Your task to perform on an android device: Check the weather Image 0: 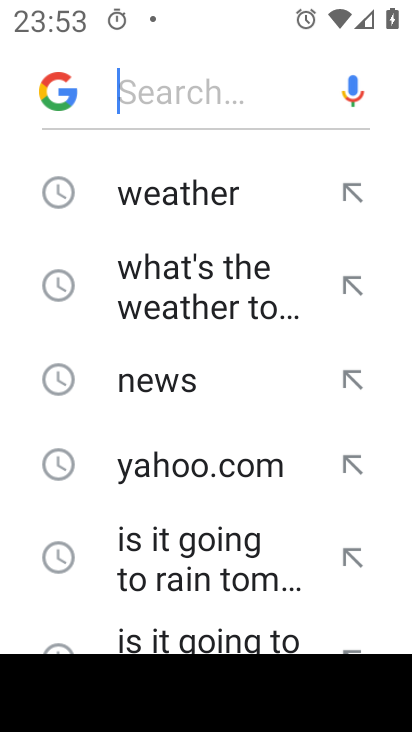
Step 0: click (162, 169)
Your task to perform on an android device: Check the weather Image 1: 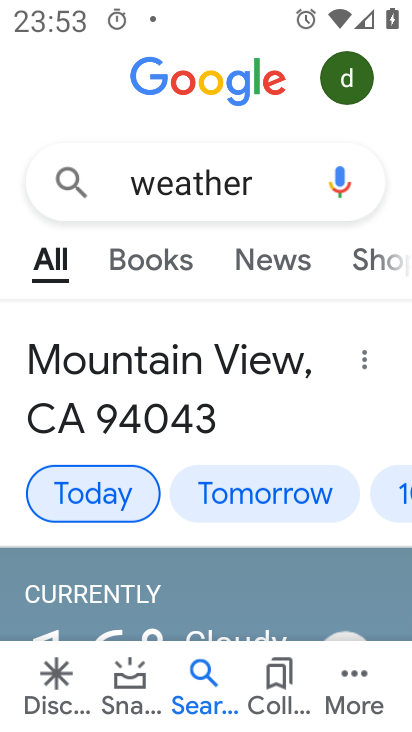
Step 1: task complete